Your task to perform on an android device: Open ESPN.com Image 0: 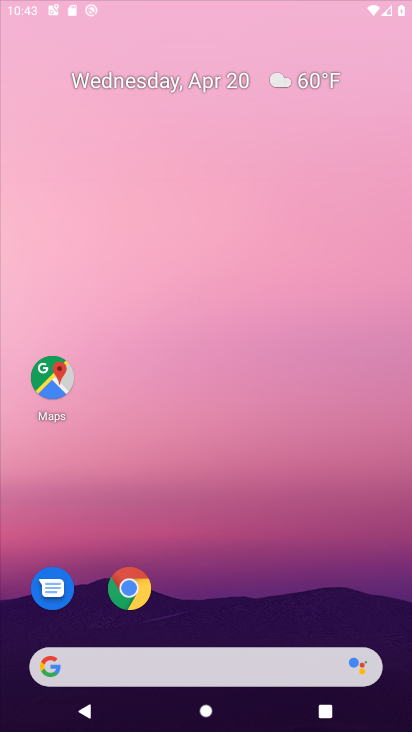
Step 0: click (137, 584)
Your task to perform on an android device: Open ESPN.com Image 1: 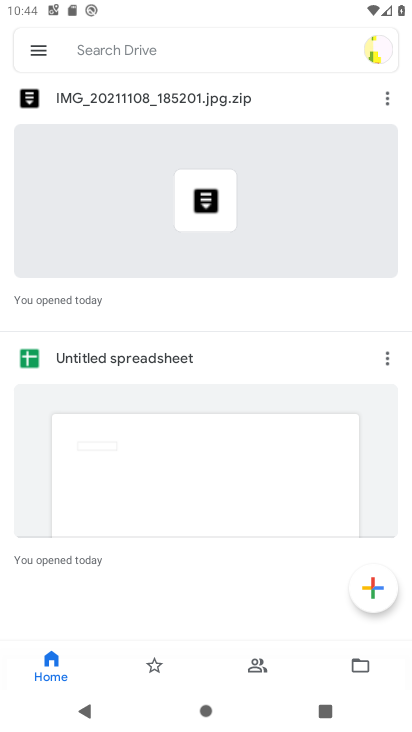
Step 1: press home button
Your task to perform on an android device: Open ESPN.com Image 2: 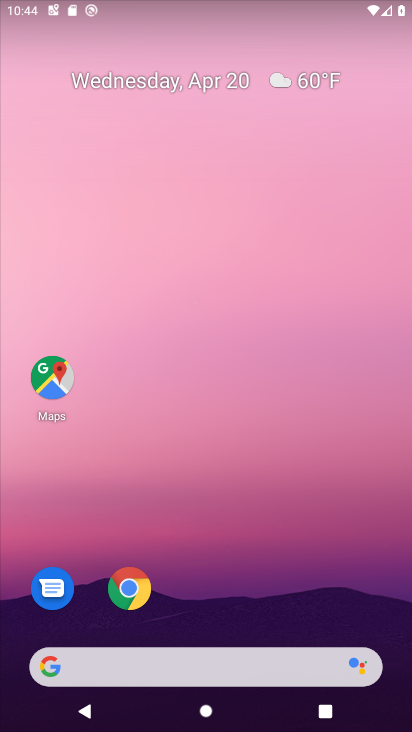
Step 2: click (130, 589)
Your task to perform on an android device: Open ESPN.com Image 3: 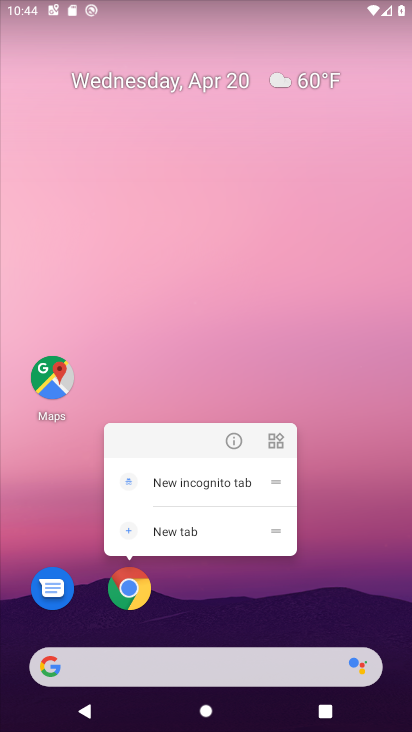
Step 3: click (120, 593)
Your task to perform on an android device: Open ESPN.com Image 4: 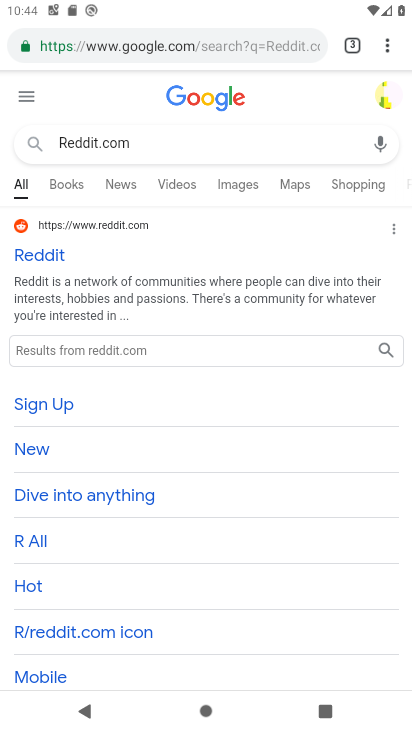
Step 4: click (156, 136)
Your task to perform on an android device: Open ESPN.com Image 5: 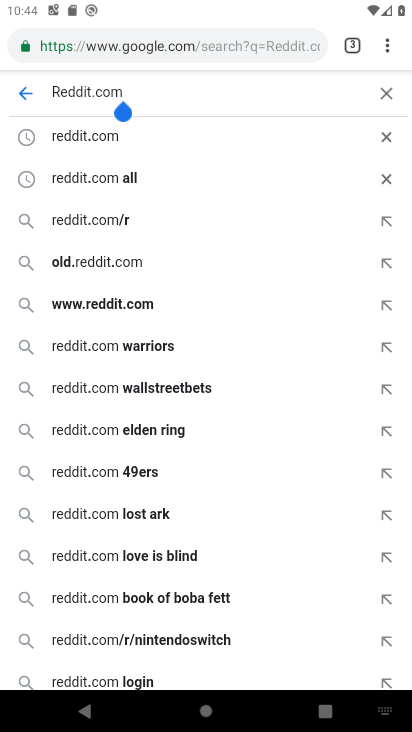
Step 5: click (385, 92)
Your task to perform on an android device: Open ESPN.com Image 6: 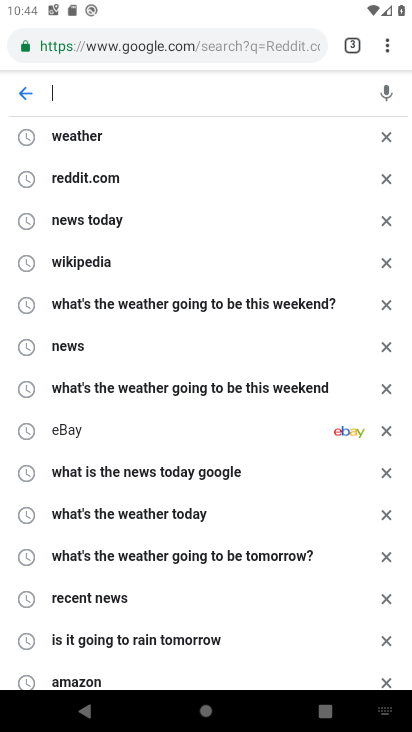
Step 6: type "ESPN.com"
Your task to perform on an android device: Open ESPN.com Image 7: 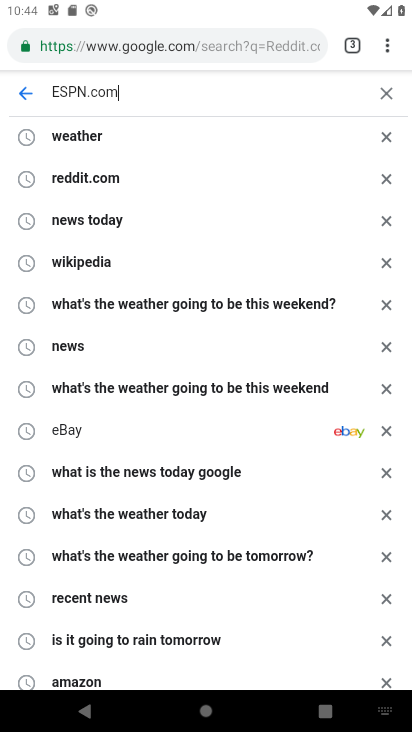
Step 7: type ""
Your task to perform on an android device: Open ESPN.com Image 8: 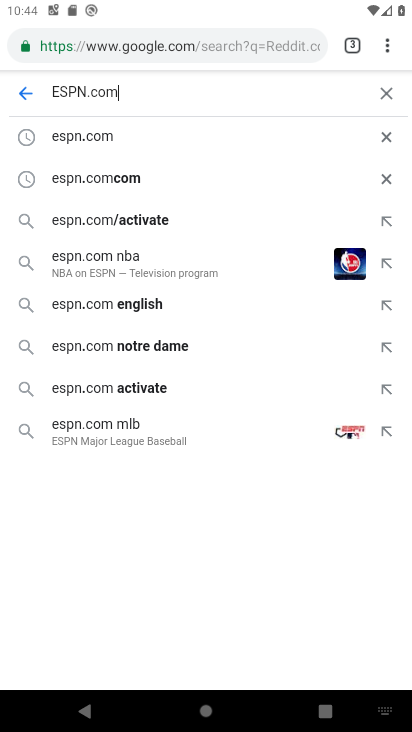
Step 8: click (107, 128)
Your task to perform on an android device: Open ESPN.com Image 9: 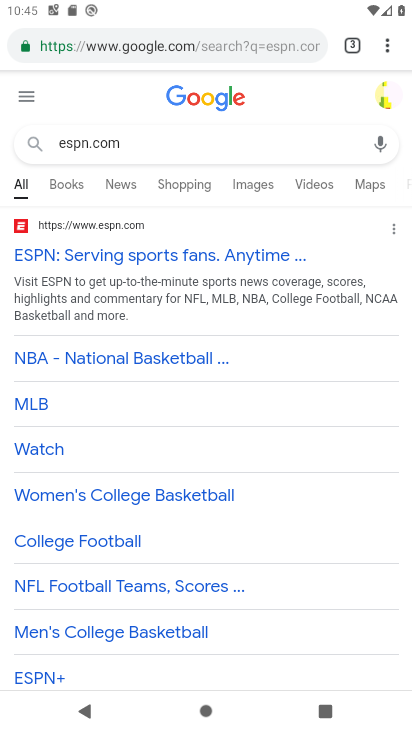
Step 9: task complete